Your task to perform on an android device: check the backup settings in the google photos Image 0: 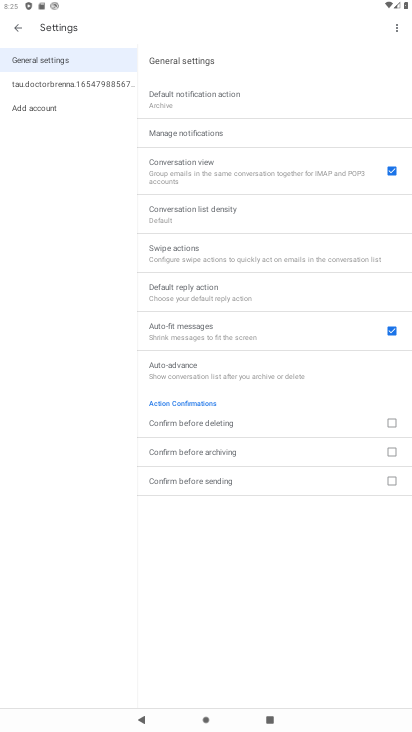
Step 0: drag from (257, 664) to (157, 93)
Your task to perform on an android device: check the backup settings in the google photos Image 1: 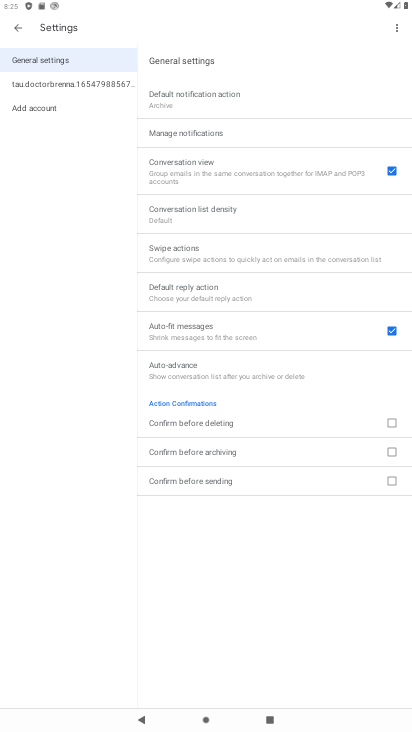
Step 1: click (19, 30)
Your task to perform on an android device: check the backup settings in the google photos Image 2: 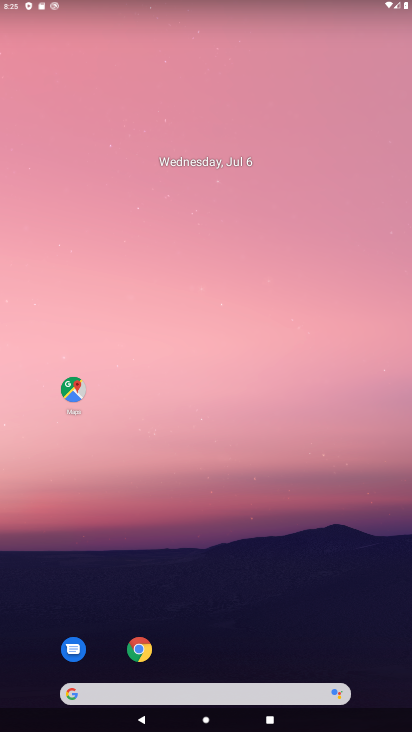
Step 2: drag from (280, 659) to (213, 192)
Your task to perform on an android device: check the backup settings in the google photos Image 3: 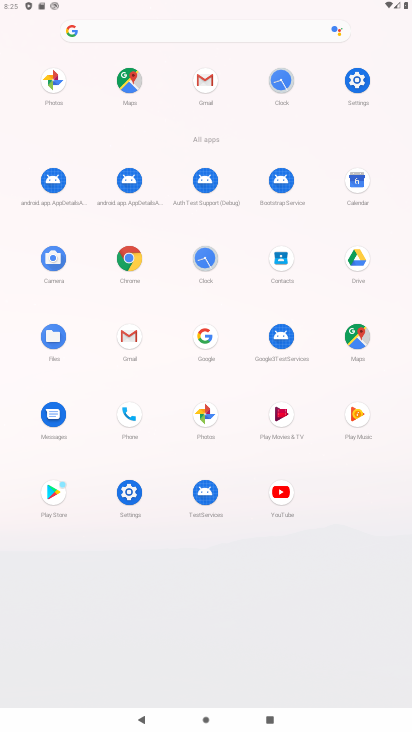
Step 3: click (203, 420)
Your task to perform on an android device: check the backup settings in the google photos Image 4: 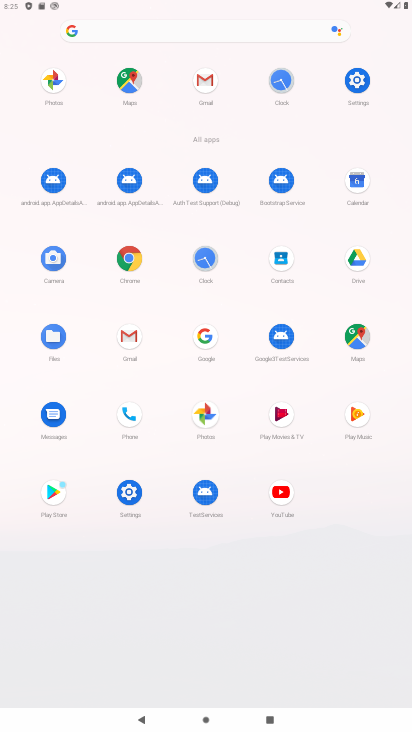
Step 4: click (209, 413)
Your task to perform on an android device: check the backup settings in the google photos Image 5: 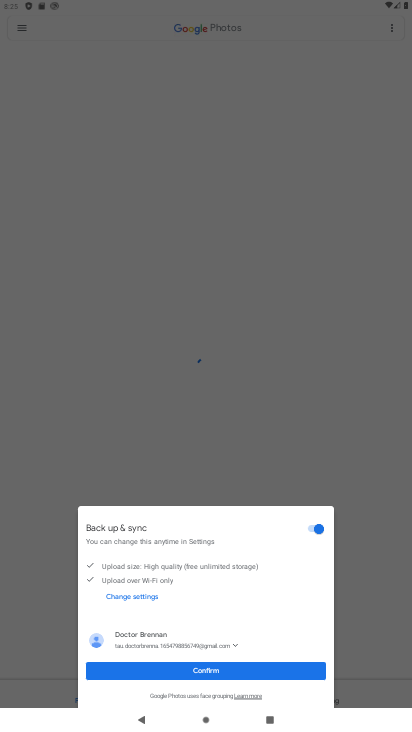
Step 5: click (204, 283)
Your task to perform on an android device: check the backup settings in the google photos Image 6: 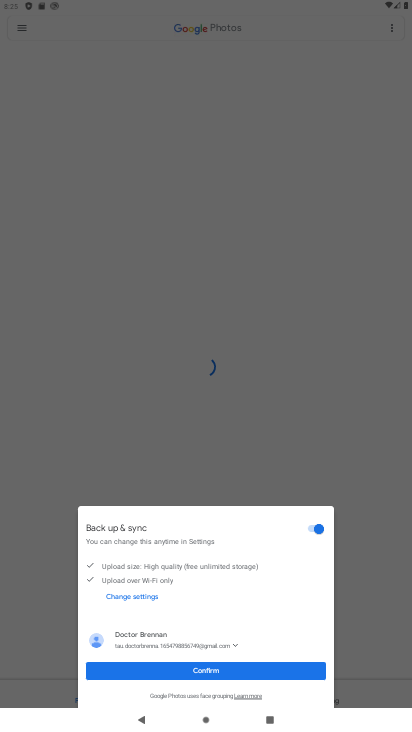
Step 6: click (204, 283)
Your task to perform on an android device: check the backup settings in the google photos Image 7: 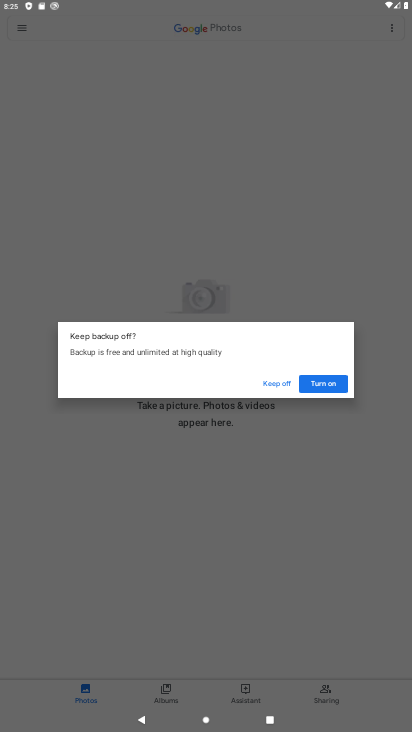
Step 7: click (335, 387)
Your task to perform on an android device: check the backup settings in the google photos Image 8: 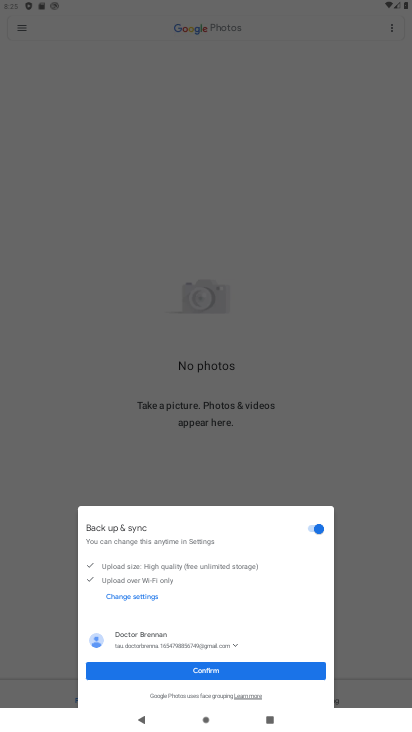
Step 8: click (242, 672)
Your task to perform on an android device: check the backup settings in the google photos Image 9: 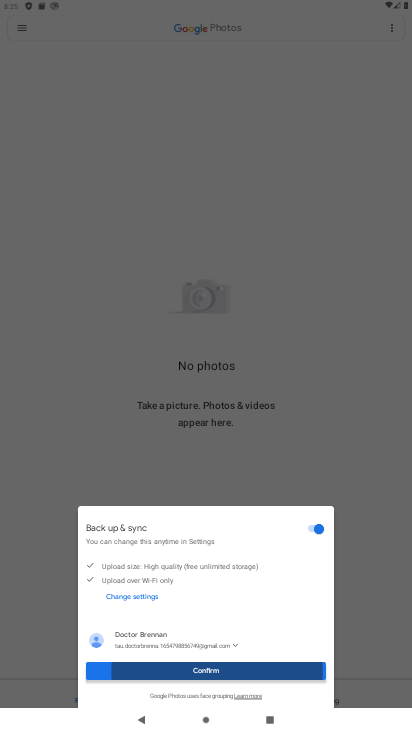
Step 9: click (292, 348)
Your task to perform on an android device: check the backup settings in the google photos Image 10: 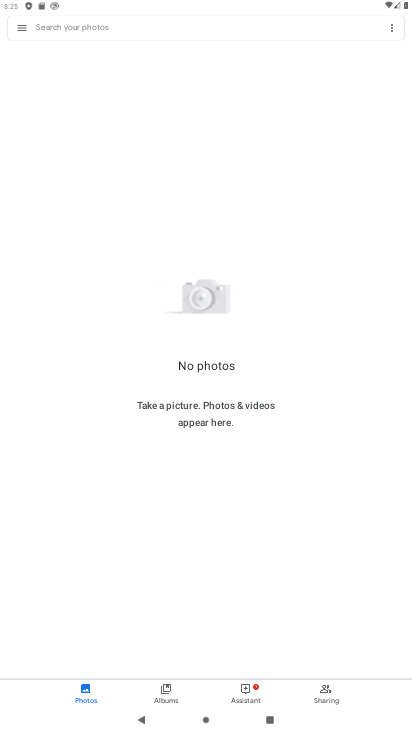
Step 10: click (24, 29)
Your task to perform on an android device: check the backup settings in the google photos Image 11: 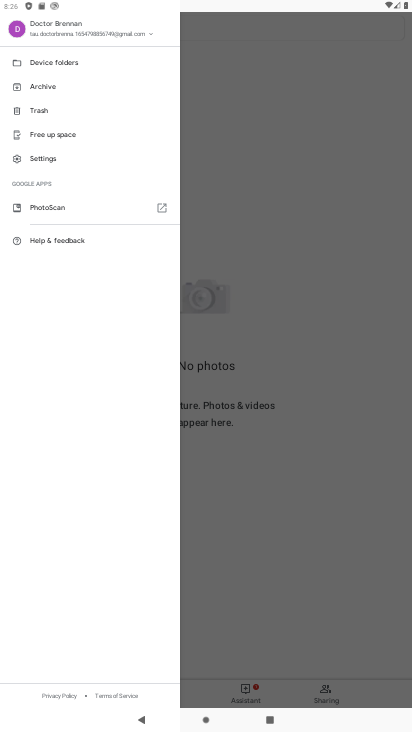
Step 11: click (45, 156)
Your task to perform on an android device: check the backup settings in the google photos Image 12: 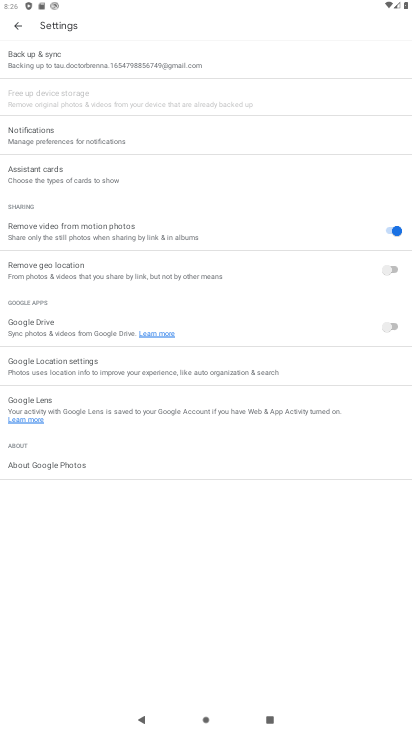
Step 12: click (54, 62)
Your task to perform on an android device: check the backup settings in the google photos Image 13: 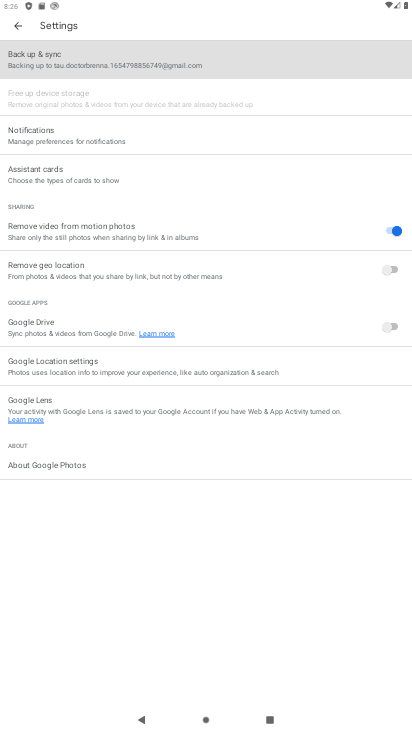
Step 13: click (54, 62)
Your task to perform on an android device: check the backup settings in the google photos Image 14: 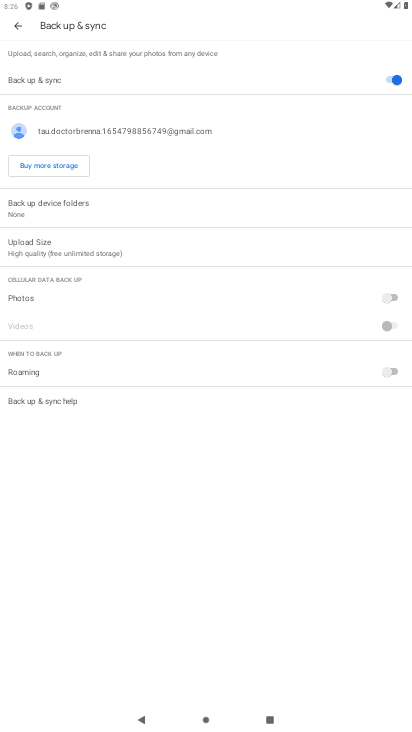
Step 14: click (62, 80)
Your task to perform on an android device: check the backup settings in the google photos Image 15: 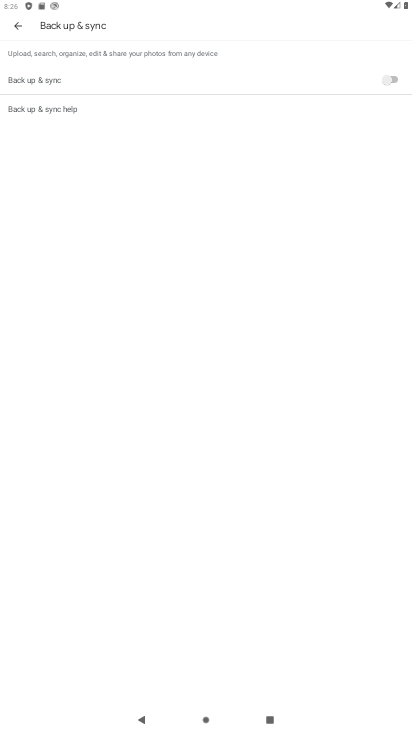
Step 15: click (62, 80)
Your task to perform on an android device: check the backup settings in the google photos Image 16: 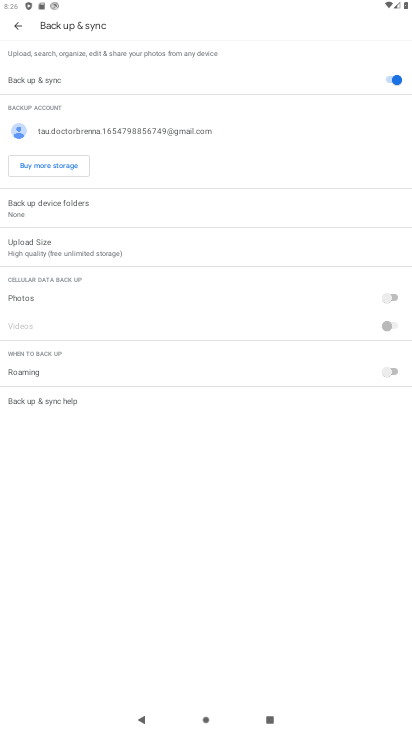
Step 16: task complete